Your task to perform on an android device: Is it going to rain tomorrow? Image 0: 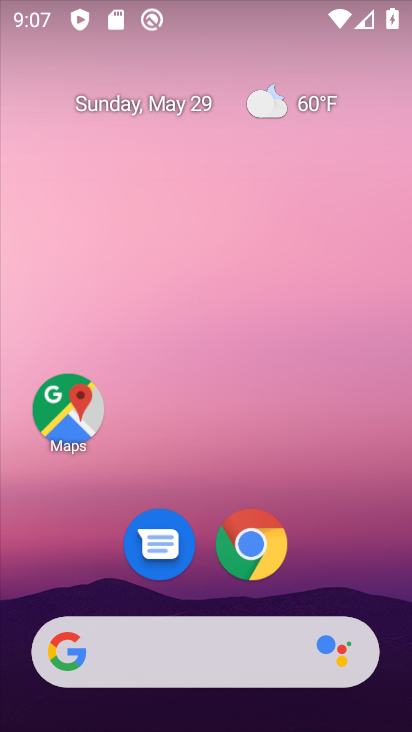
Step 0: drag from (196, 578) to (214, 95)
Your task to perform on an android device: Is it going to rain tomorrow? Image 1: 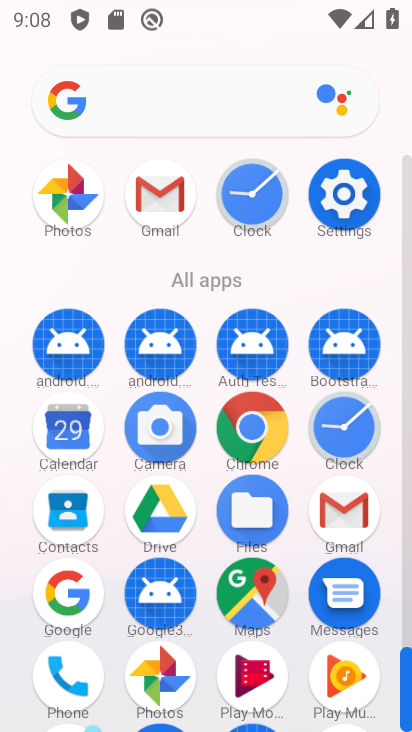
Step 1: click (83, 589)
Your task to perform on an android device: Is it going to rain tomorrow? Image 2: 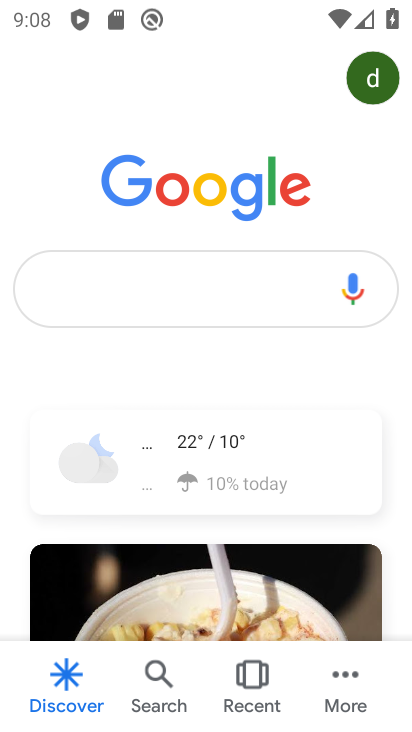
Step 2: click (183, 283)
Your task to perform on an android device: Is it going to rain tomorrow? Image 3: 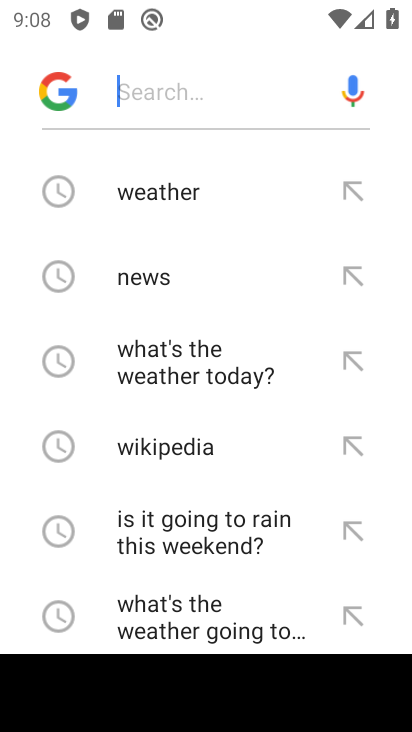
Step 3: drag from (200, 515) to (237, 184)
Your task to perform on an android device: Is it going to rain tomorrow? Image 4: 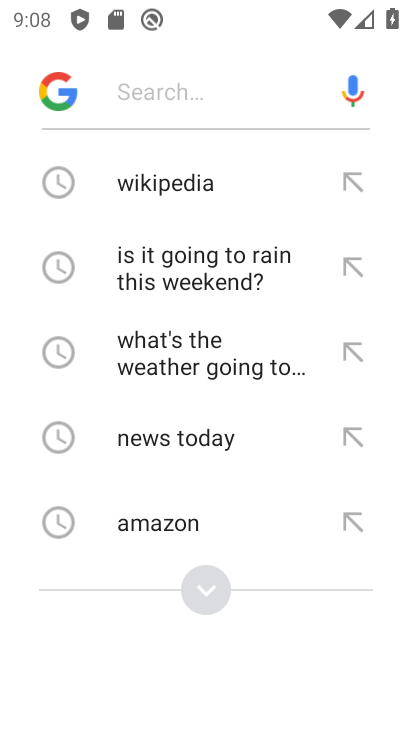
Step 4: click (207, 581)
Your task to perform on an android device: Is it going to rain tomorrow? Image 5: 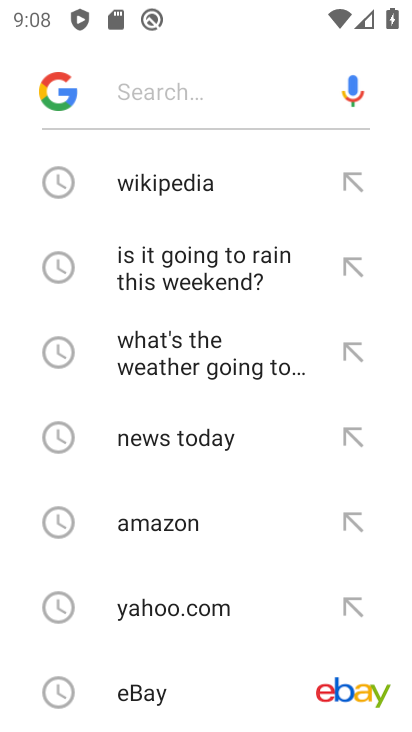
Step 5: drag from (233, 614) to (214, 154)
Your task to perform on an android device: Is it going to rain tomorrow? Image 6: 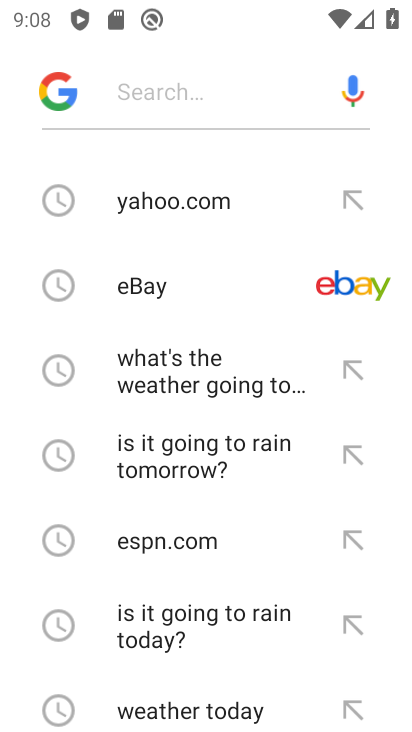
Step 6: click (141, 461)
Your task to perform on an android device: Is it going to rain tomorrow? Image 7: 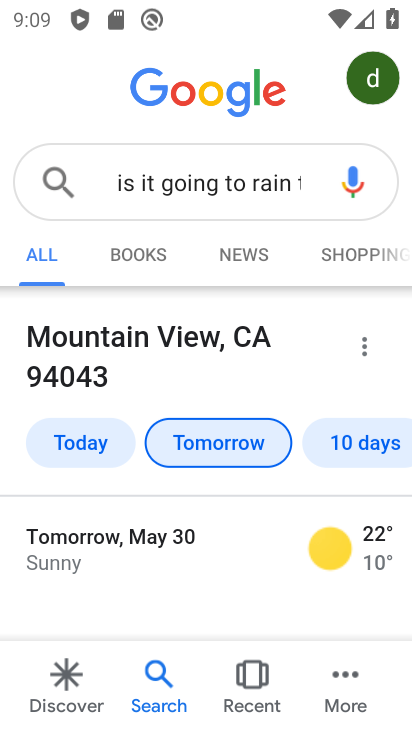
Step 7: task complete